Your task to perform on an android device: Open Google Chrome Image 0: 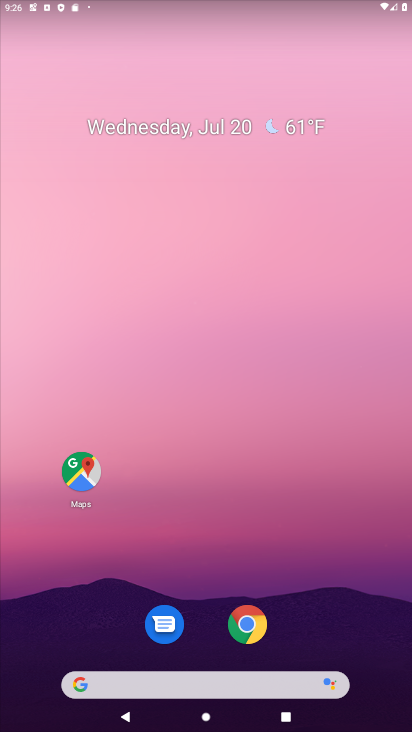
Step 0: click (260, 608)
Your task to perform on an android device: Open Google Chrome Image 1: 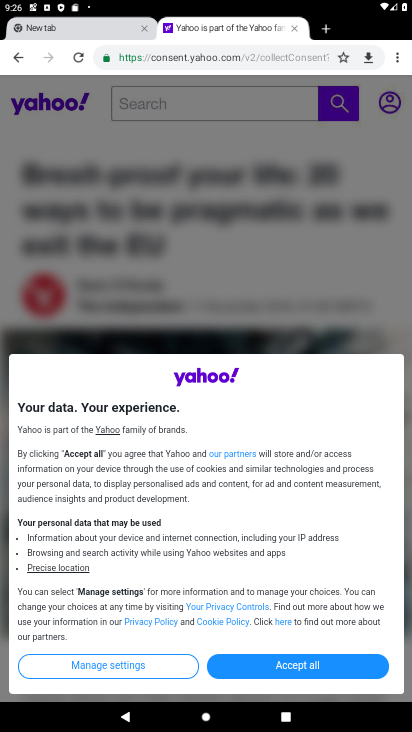
Step 1: task complete